Your task to perform on an android device: move an email to a new category in the gmail app Image 0: 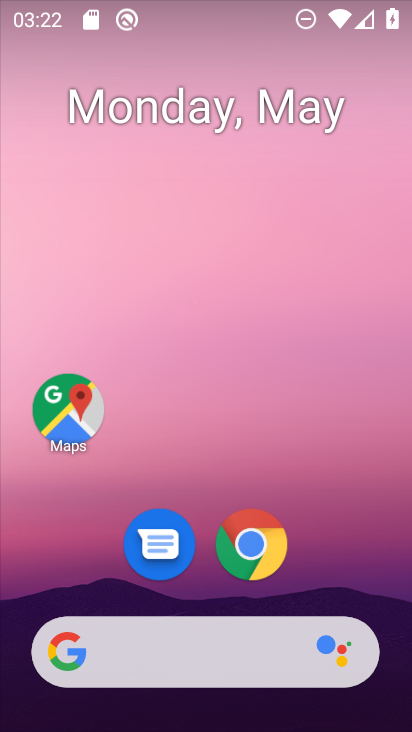
Step 0: drag from (380, 575) to (367, 208)
Your task to perform on an android device: move an email to a new category in the gmail app Image 1: 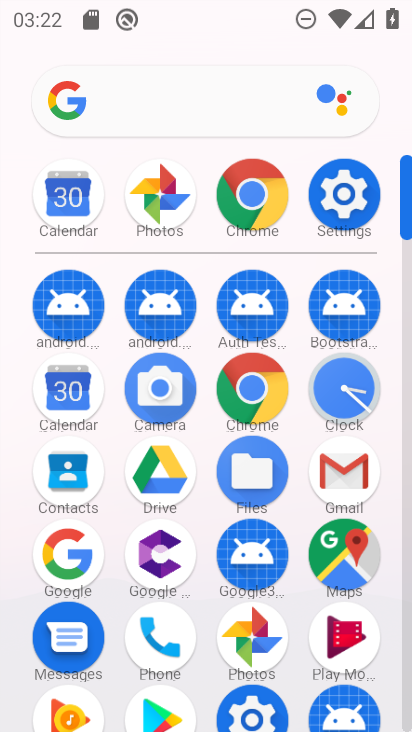
Step 1: click (363, 468)
Your task to perform on an android device: move an email to a new category in the gmail app Image 2: 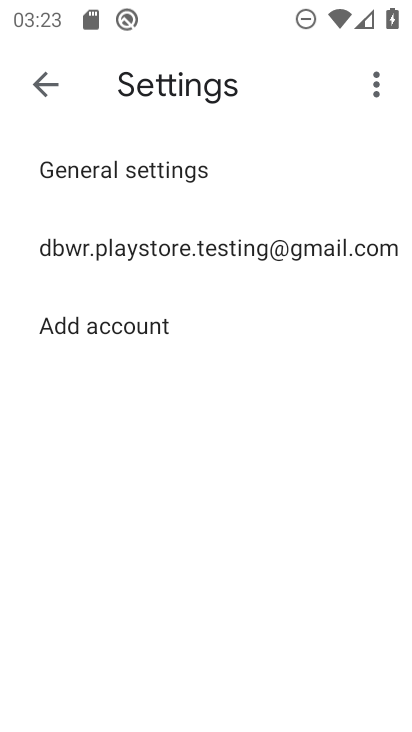
Step 2: click (50, 92)
Your task to perform on an android device: move an email to a new category in the gmail app Image 3: 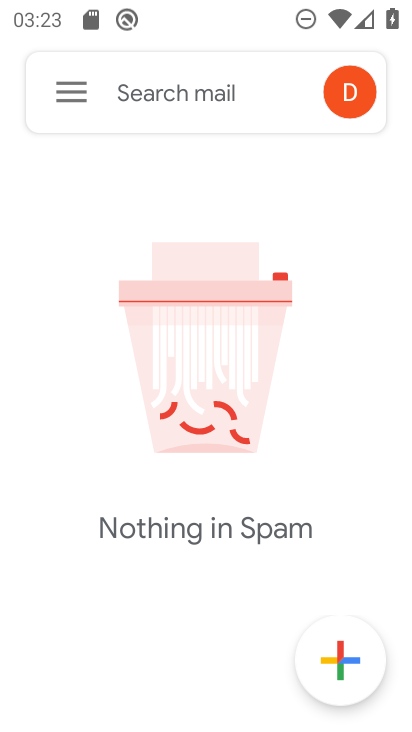
Step 3: click (56, 89)
Your task to perform on an android device: move an email to a new category in the gmail app Image 4: 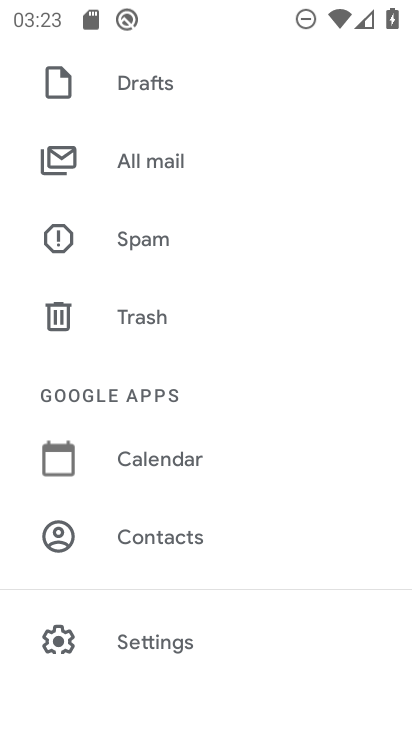
Step 4: drag from (279, 182) to (271, 274)
Your task to perform on an android device: move an email to a new category in the gmail app Image 5: 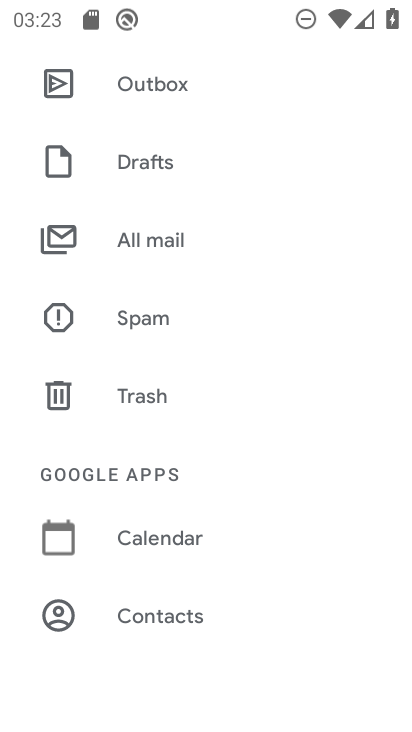
Step 5: drag from (269, 132) to (271, 226)
Your task to perform on an android device: move an email to a new category in the gmail app Image 6: 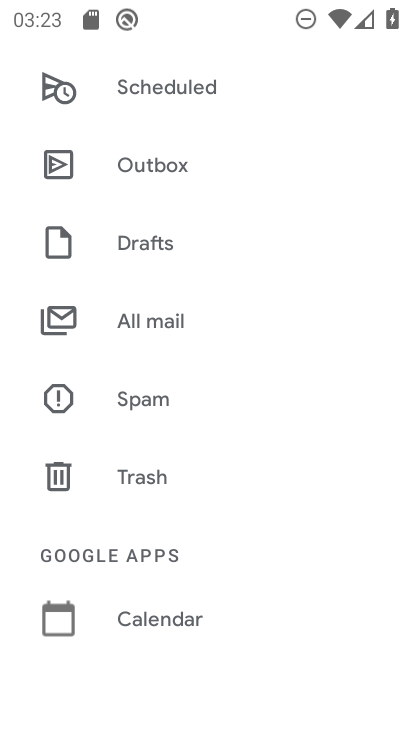
Step 6: drag from (270, 125) to (273, 222)
Your task to perform on an android device: move an email to a new category in the gmail app Image 7: 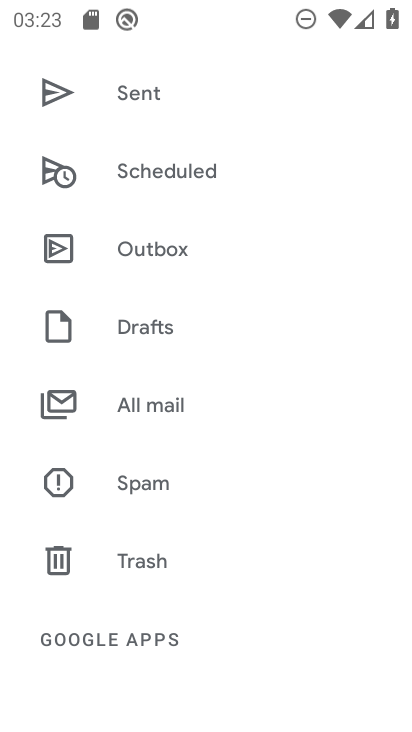
Step 7: drag from (266, 120) to (265, 216)
Your task to perform on an android device: move an email to a new category in the gmail app Image 8: 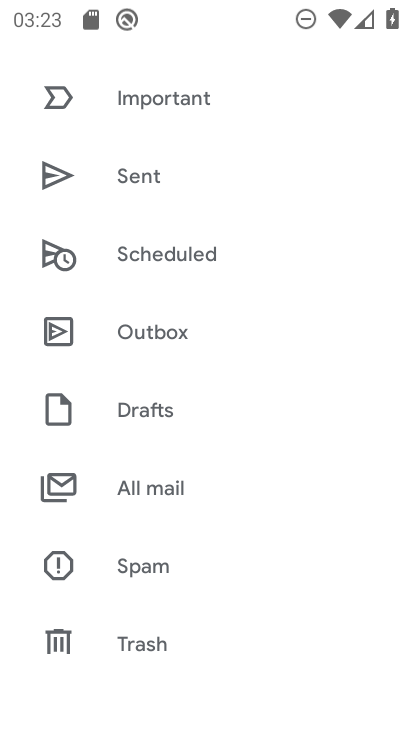
Step 8: drag from (271, 113) to (275, 225)
Your task to perform on an android device: move an email to a new category in the gmail app Image 9: 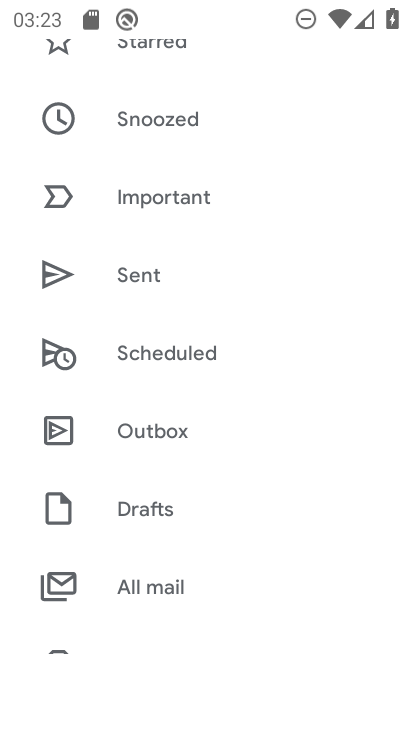
Step 9: drag from (261, 117) to (263, 221)
Your task to perform on an android device: move an email to a new category in the gmail app Image 10: 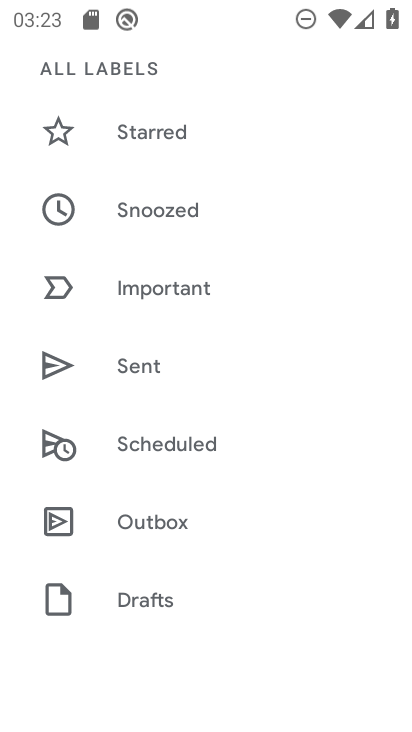
Step 10: drag from (259, 105) to (263, 249)
Your task to perform on an android device: move an email to a new category in the gmail app Image 11: 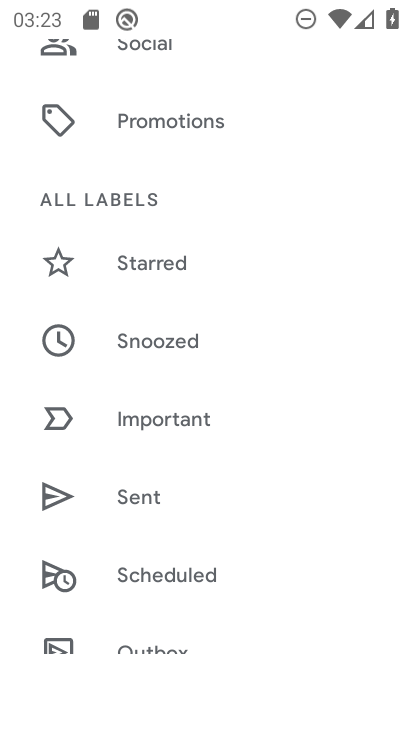
Step 11: drag from (274, 106) to (275, 248)
Your task to perform on an android device: move an email to a new category in the gmail app Image 12: 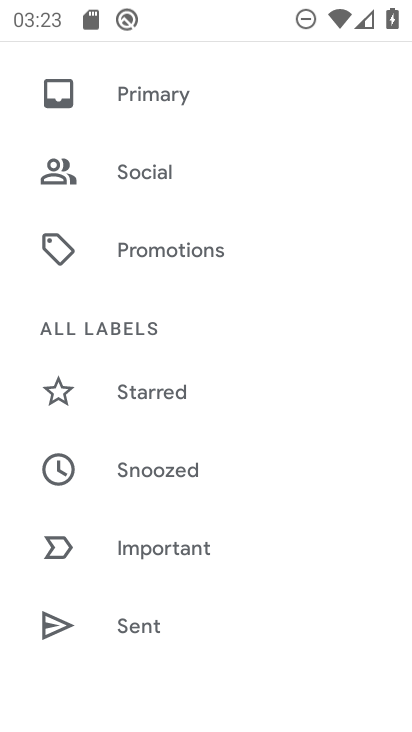
Step 12: drag from (279, 119) to (273, 247)
Your task to perform on an android device: move an email to a new category in the gmail app Image 13: 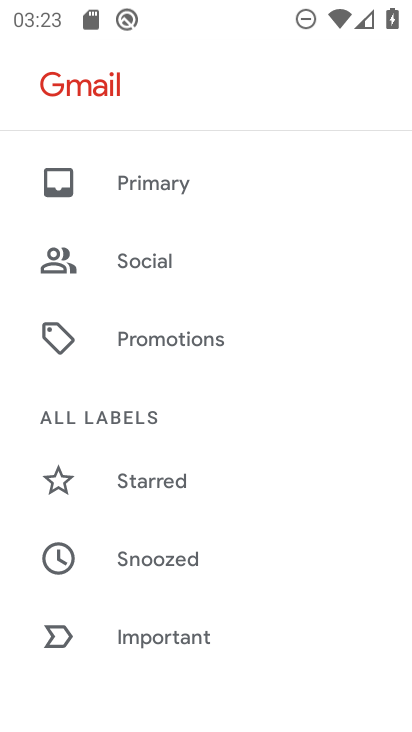
Step 13: click (192, 193)
Your task to perform on an android device: move an email to a new category in the gmail app Image 14: 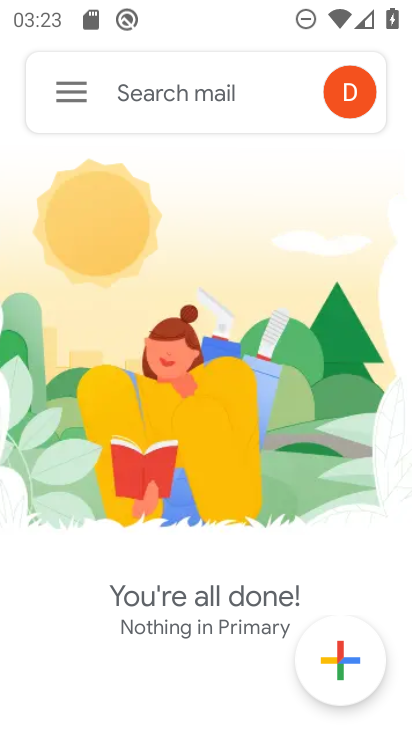
Step 14: task complete